Your task to perform on an android device: turn smart compose on in the gmail app Image 0: 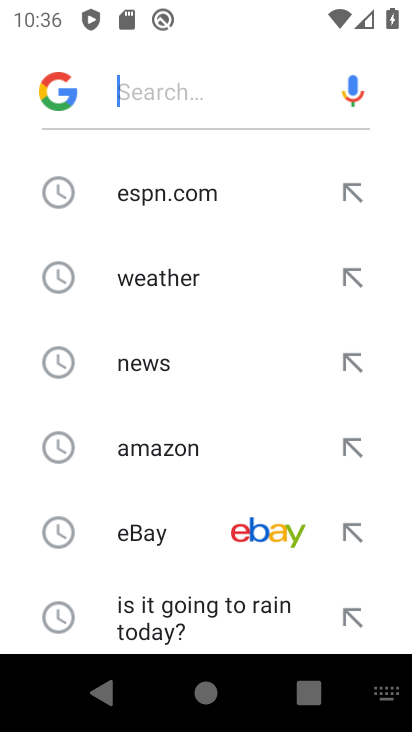
Step 0: press home button
Your task to perform on an android device: turn smart compose on in the gmail app Image 1: 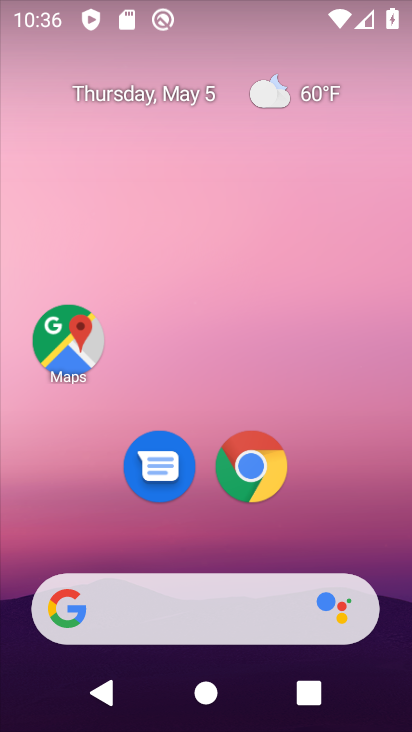
Step 1: drag from (180, 576) to (218, 210)
Your task to perform on an android device: turn smart compose on in the gmail app Image 2: 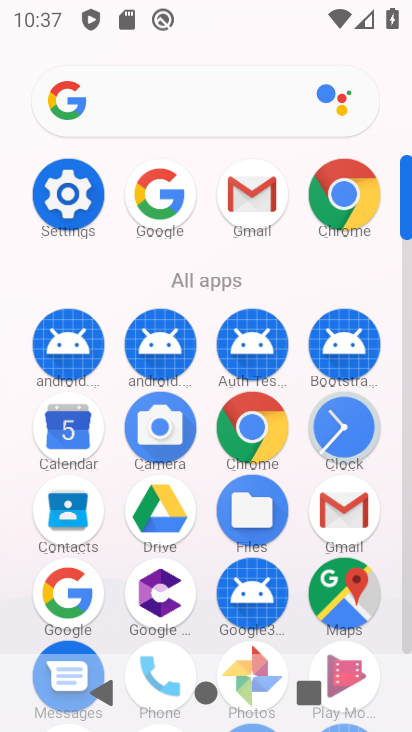
Step 2: click (239, 198)
Your task to perform on an android device: turn smart compose on in the gmail app Image 3: 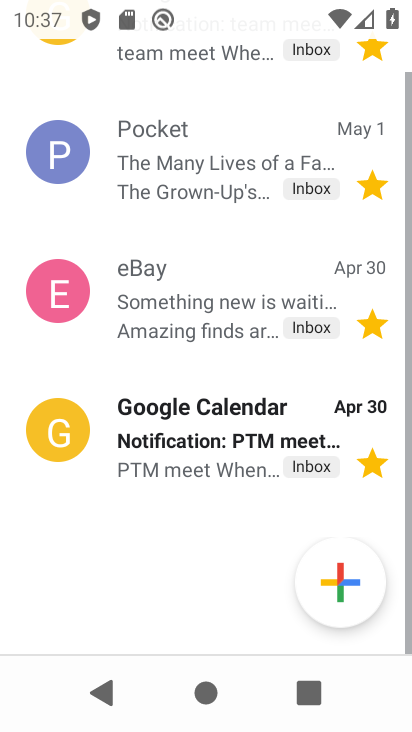
Step 3: drag from (121, 93) to (194, 596)
Your task to perform on an android device: turn smart compose on in the gmail app Image 4: 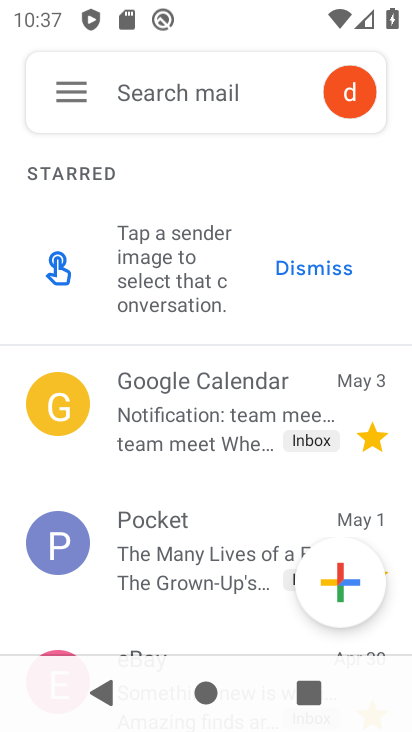
Step 4: click (64, 98)
Your task to perform on an android device: turn smart compose on in the gmail app Image 5: 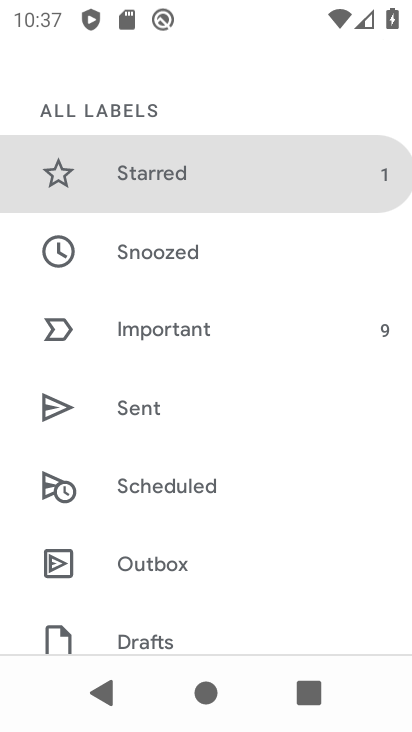
Step 5: drag from (121, 590) to (124, 234)
Your task to perform on an android device: turn smart compose on in the gmail app Image 6: 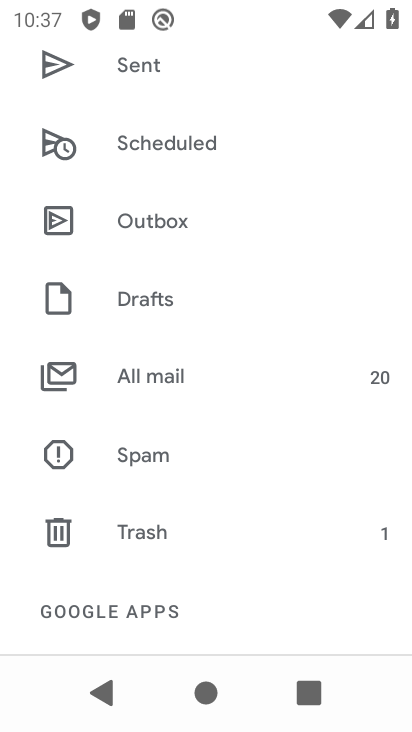
Step 6: drag from (109, 572) to (92, 213)
Your task to perform on an android device: turn smart compose on in the gmail app Image 7: 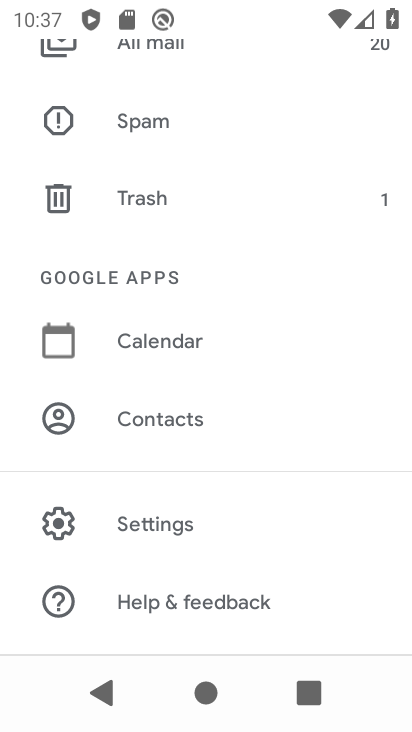
Step 7: click (124, 523)
Your task to perform on an android device: turn smart compose on in the gmail app Image 8: 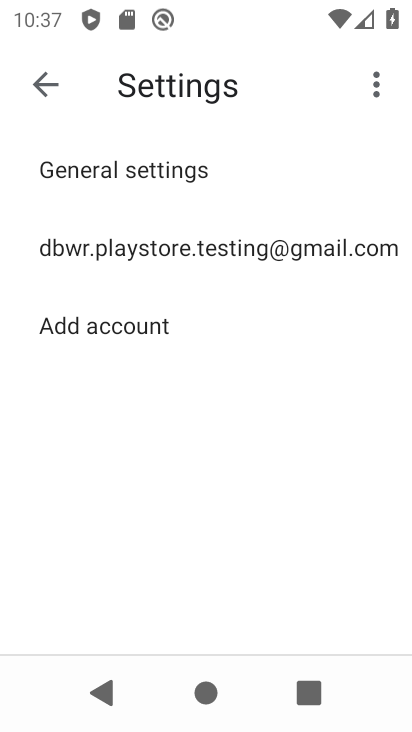
Step 8: click (103, 256)
Your task to perform on an android device: turn smart compose on in the gmail app Image 9: 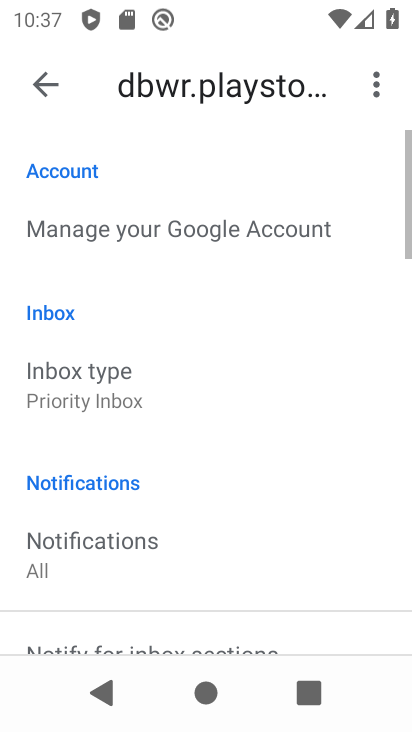
Step 9: task complete